Your task to perform on an android device: turn off notifications settings in the gmail app Image 0: 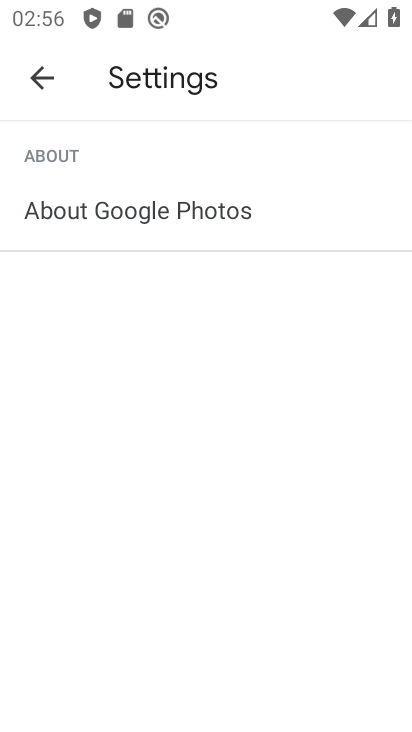
Step 0: press home button
Your task to perform on an android device: turn off notifications settings in the gmail app Image 1: 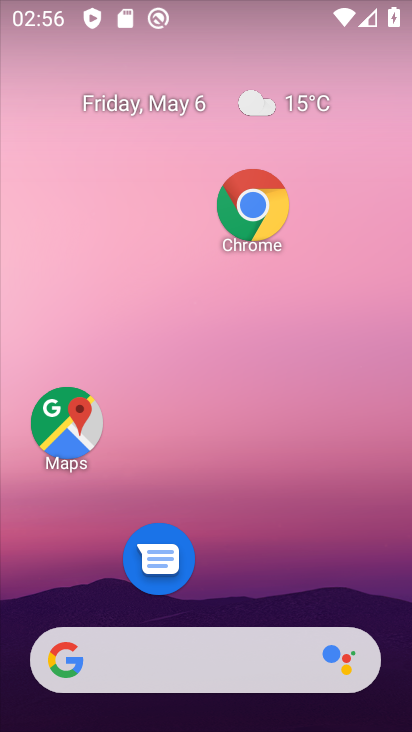
Step 1: drag from (254, 582) to (252, 90)
Your task to perform on an android device: turn off notifications settings in the gmail app Image 2: 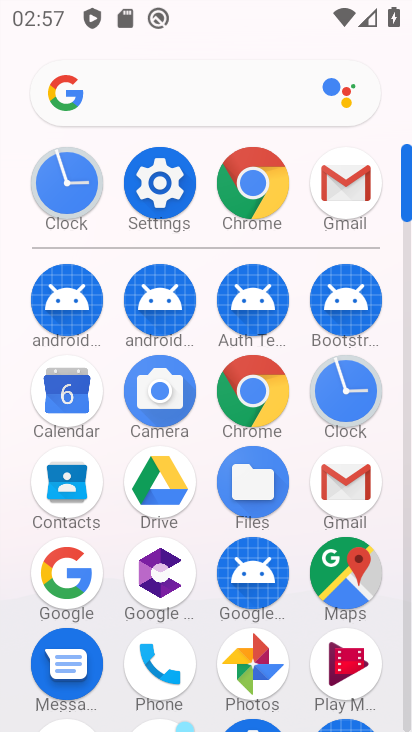
Step 2: click (336, 515)
Your task to perform on an android device: turn off notifications settings in the gmail app Image 3: 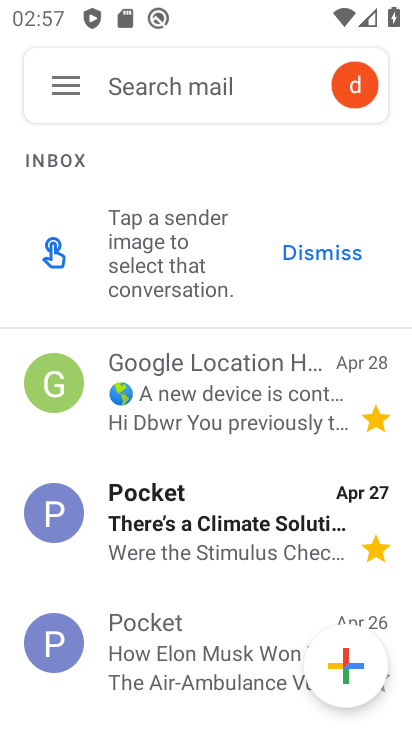
Step 3: click (57, 103)
Your task to perform on an android device: turn off notifications settings in the gmail app Image 4: 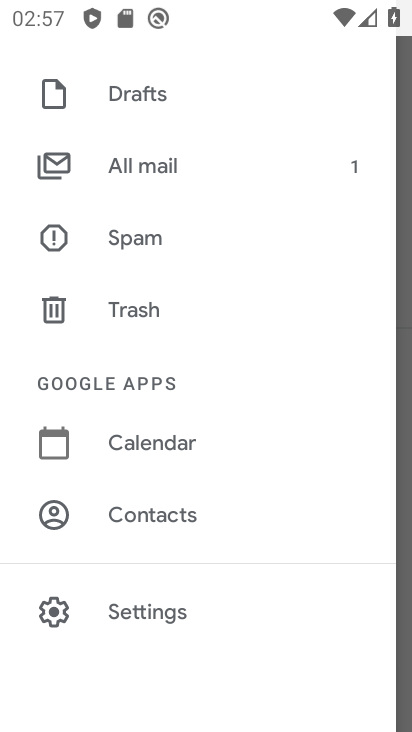
Step 4: click (151, 597)
Your task to perform on an android device: turn off notifications settings in the gmail app Image 5: 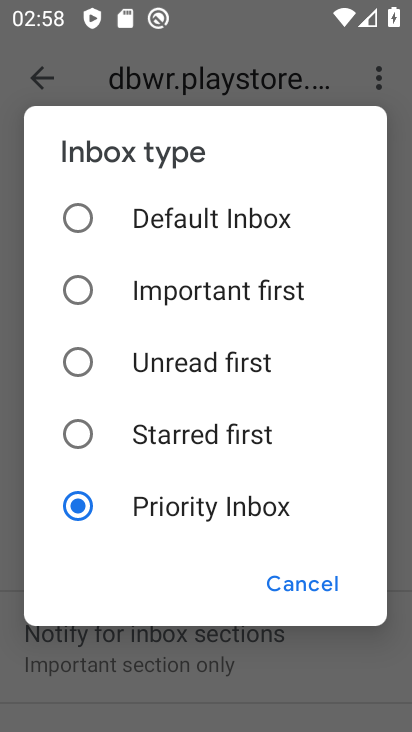
Step 5: click (305, 596)
Your task to perform on an android device: turn off notifications settings in the gmail app Image 6: 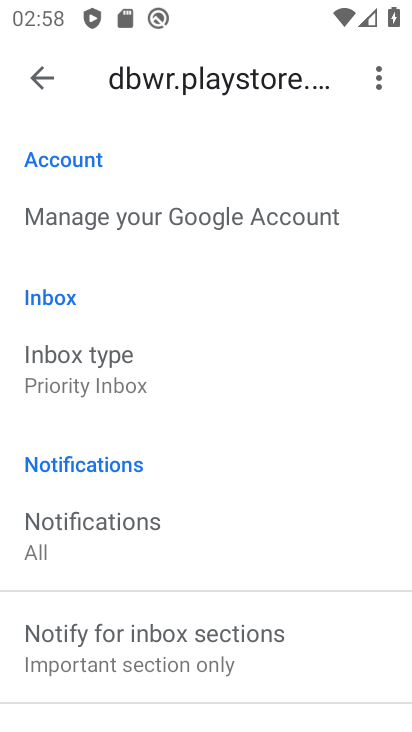
Step 6: click (44, 85)
Your task to perform on an android device: turn off notifications settings in the gmail app Image 7: 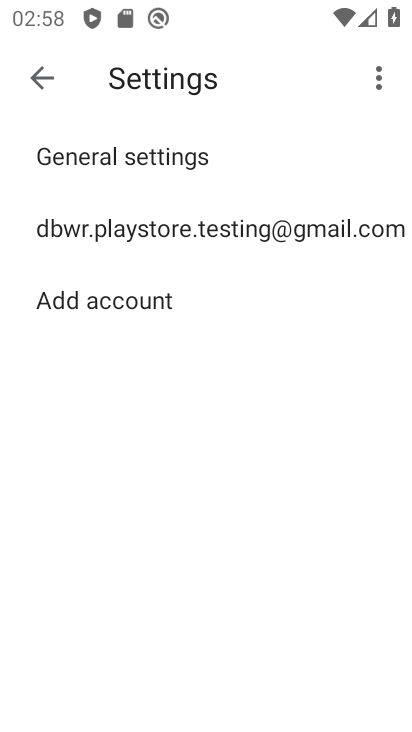
Step 7: click (109, 141)
Your task to perform on an android device: turn off notifications settings in the gmail app Image 8: 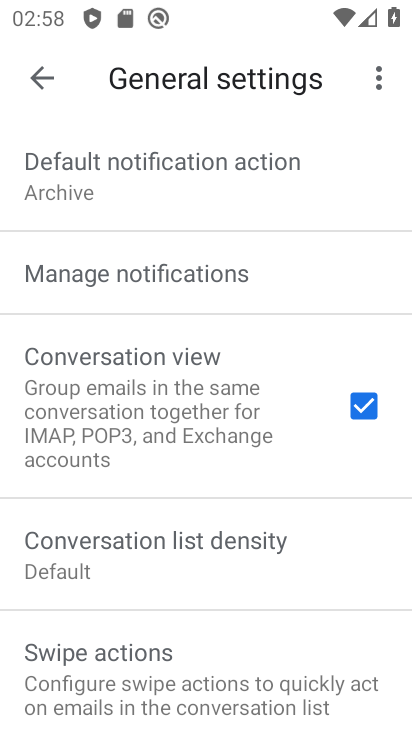
Step 8: click (158, 268)
Your task to perform on an android device: turn off notifications settings in the gmail app Image 9: 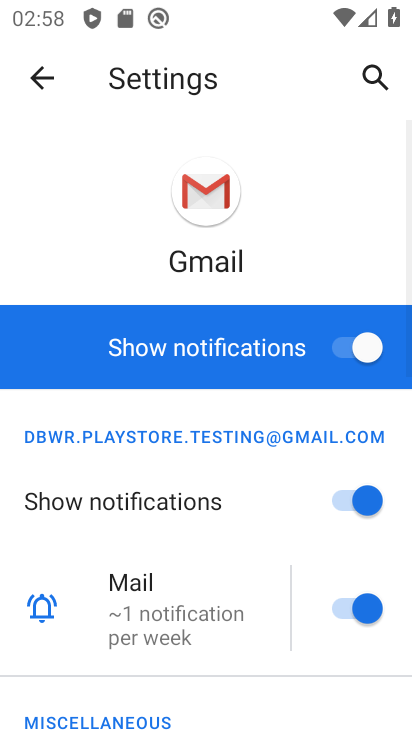
Step 9: click (357, 342)
Your task to perform on an android device: turn off notifications settings in the gmail app Image 10: 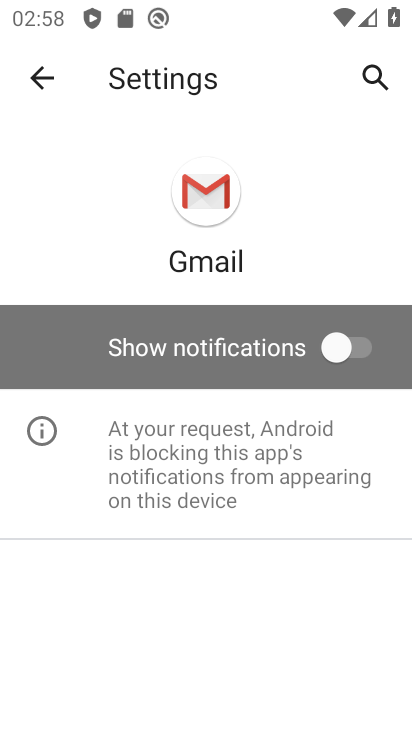
Step 10: task complete